Your task to perform on an android device: What's on my calendar tomorrow? Image 0: 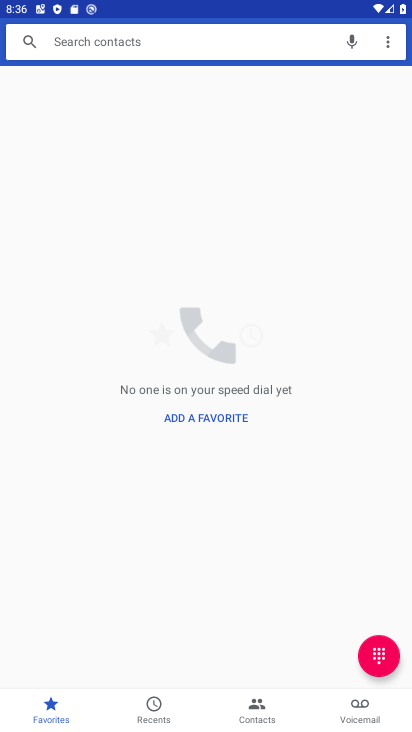
Step 0: press home button
Your task to perform on an android device: What's on my calendar tomorrow? Image 1: 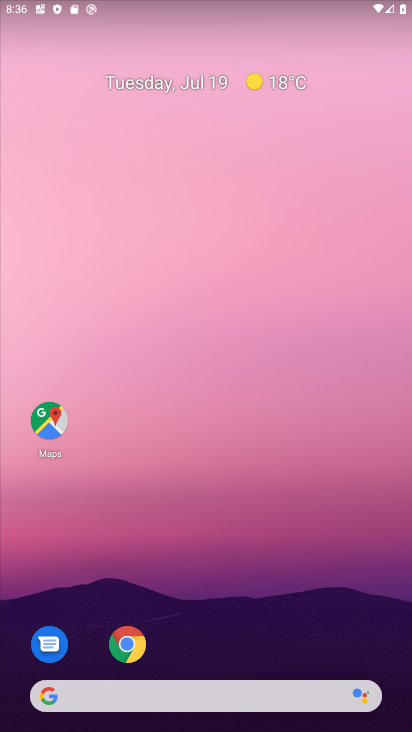
Step 1: drag from (252, 730) to (246, 204)
Your task to perform on an android device: What's on my calendar tomorrow? Image 2: 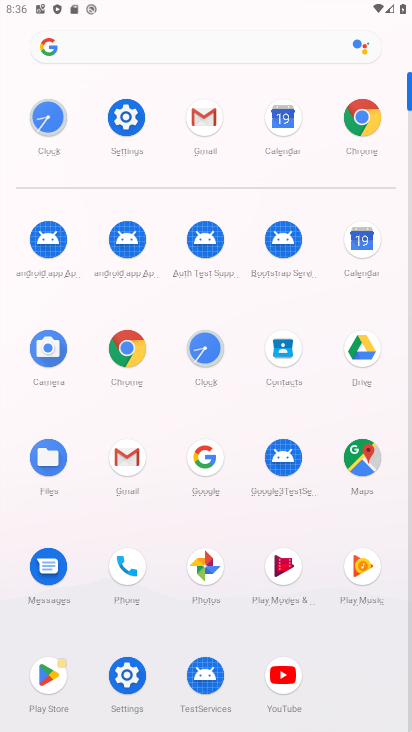
Step 2: click (364, 243)
Your task to perform on an android device: What's on my calendar tomorrow? Image 3: 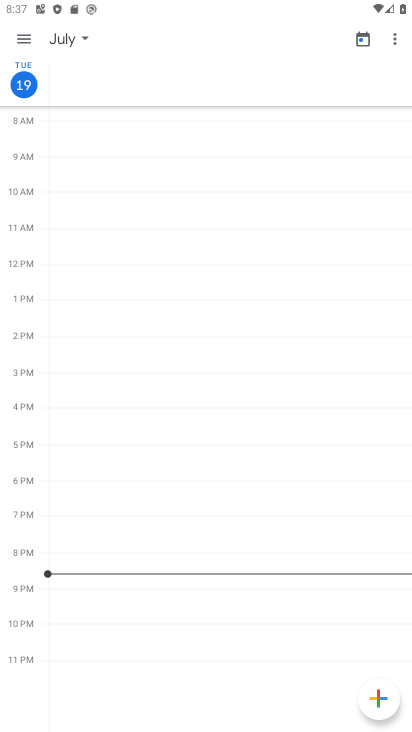
Step 3: click (74, 37)
Your task to perform on an android device: What's on my calendar tomorrow? Image 4: 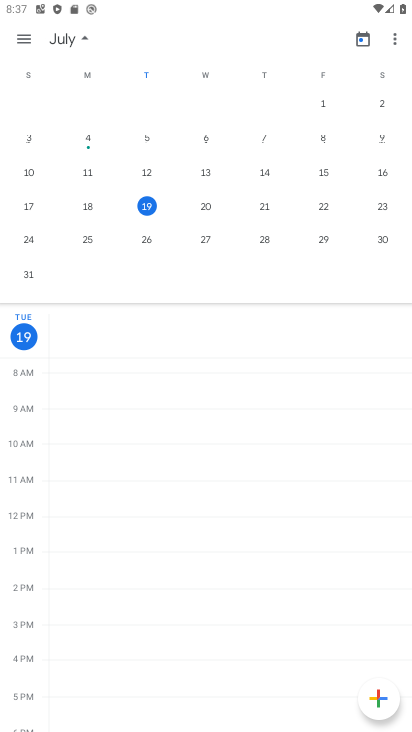
Step 4: click (211, 203)
Your task to perform on an android device: What's on my calendar tomorrow? Image 5: 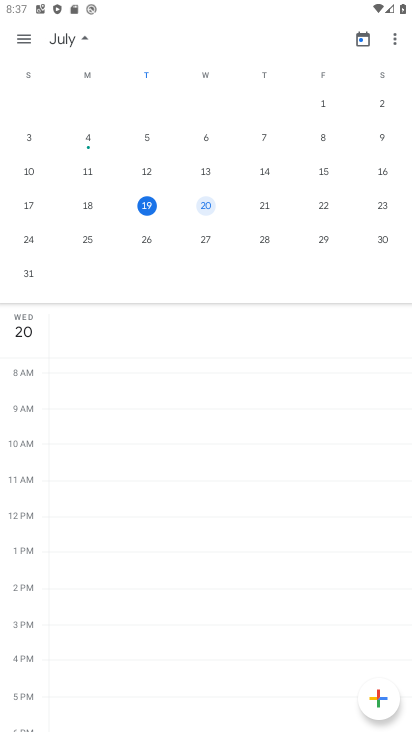
Step 5: click (207, 201)
Your task to perform on an android device: What's on my calendar tomorrow? Image 6: 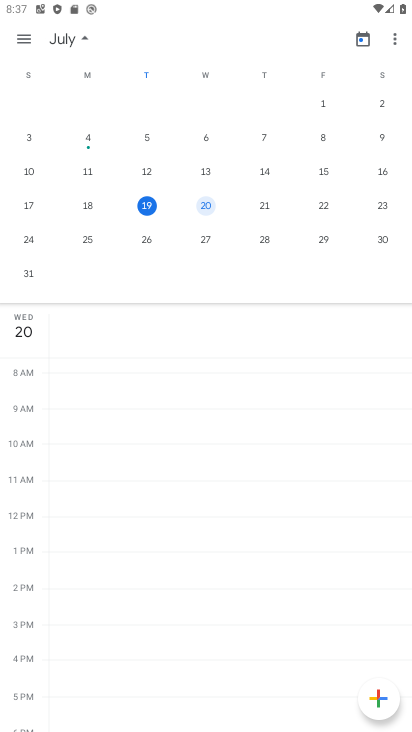
Step 6: click (22, 331)
Your task to perform on an android device: What's on my calendar tomorrow? Image 7: 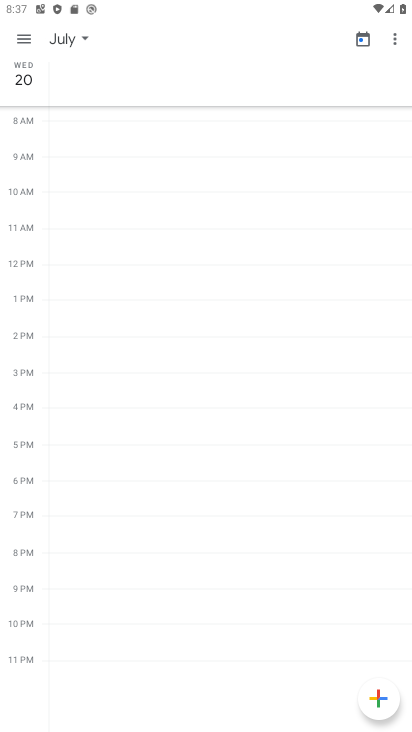
Step 7: task complete